Your task to perform on an android device: toggle airplane mode Image 0: 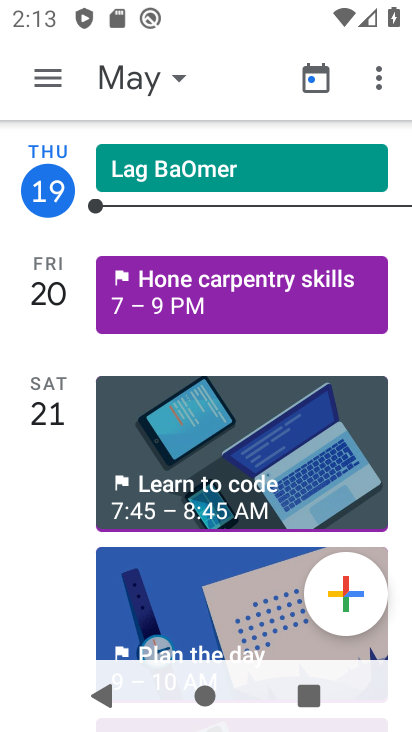
Step 0: press home button
Your task to perform on an android device: toggle airplane mode Image 1: 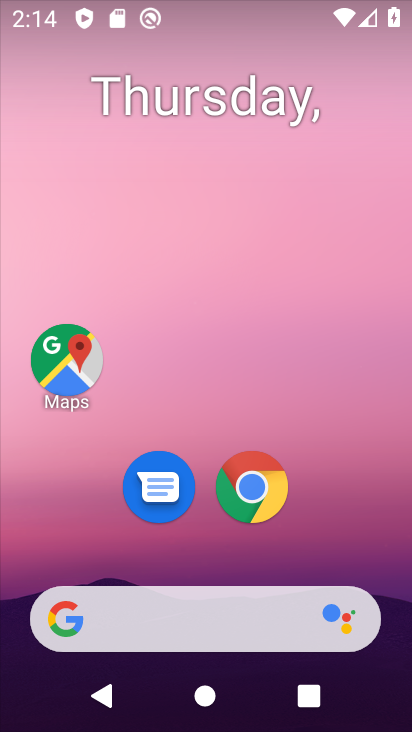
Step 1: drag from (106, 432) to (223, 177)
Your task to perform on an android device: toggle airplane mode Image 2: 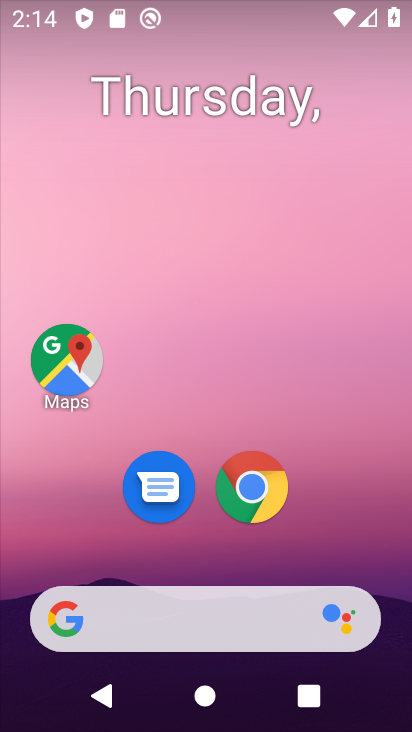
Step 2: drag from (380, 695) to (401, 323)
Your task to perform on an android device: toggle airplane mode Image 3: 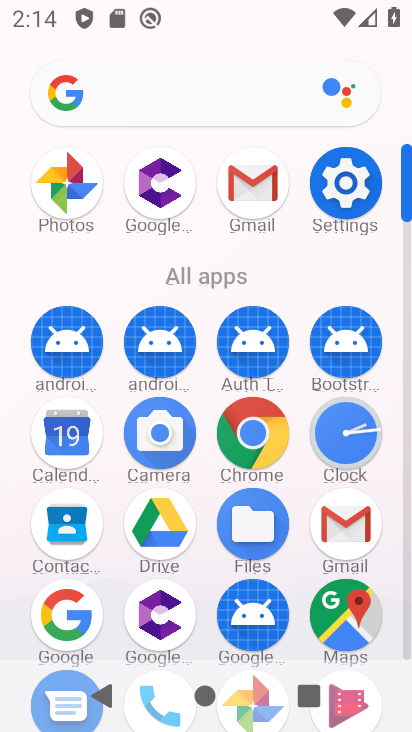
Step 3: drag from (369, 530) to (405, 61)
Your task to perform on an android device: toggle airplane mode Image 4: 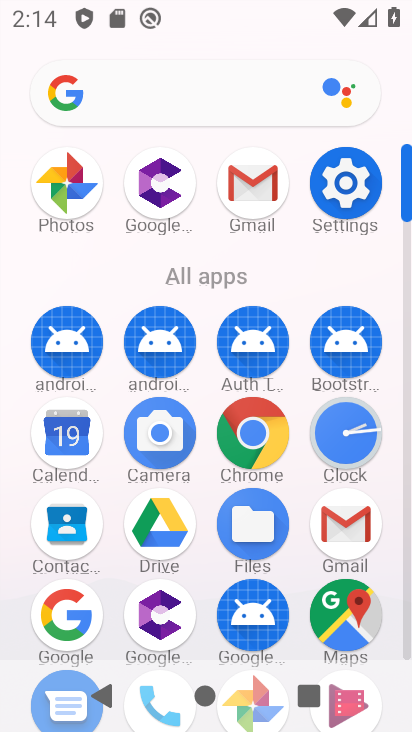
Step 4: click (368, 192)
Your task to perform on an android device: toggle airplane mode Image 5: 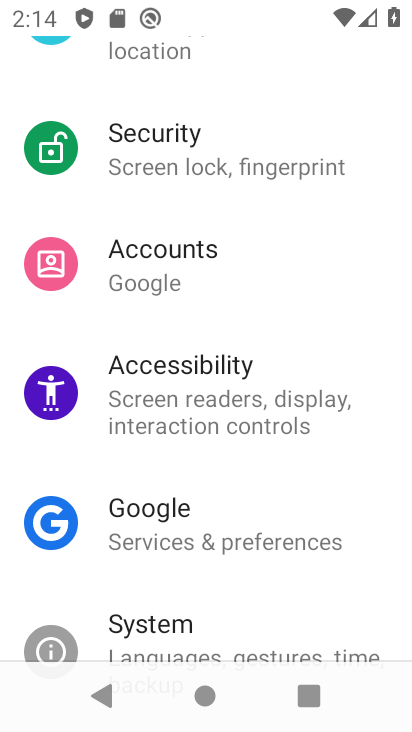
Step 5: drag from (368, 192) to (308, 534)
Your task to perform on an android device: toggle airplane mode Image 6: 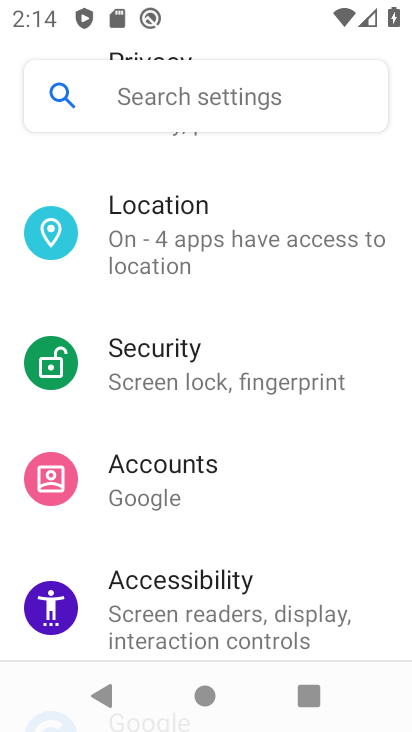
Step 6: drag from (317, 296) to (316, 557)
Your task to perform on an android device: toggle airplane mode Image 7: 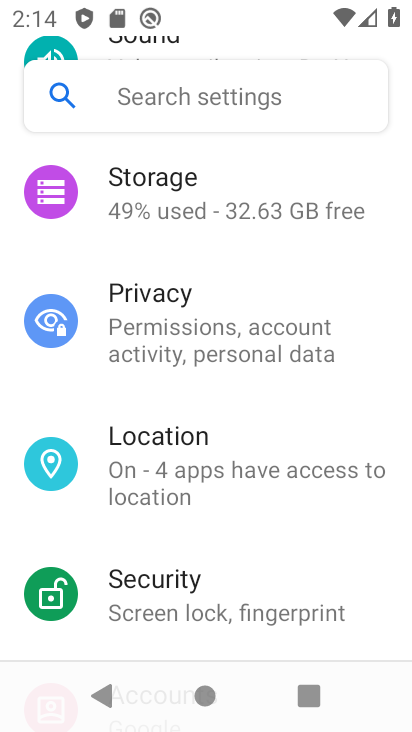
Step 7: drag from (326, 264) to (298, 539)
Your task to perform on an android device: toggle airplane mode Image 8: 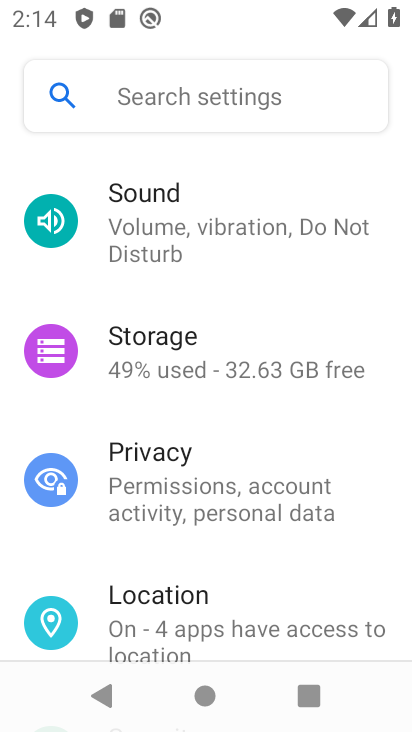
Step 8: drag from (339, 259) to (276, 582)
Your task to perform on an android device: toggle airplane mode Image 9: 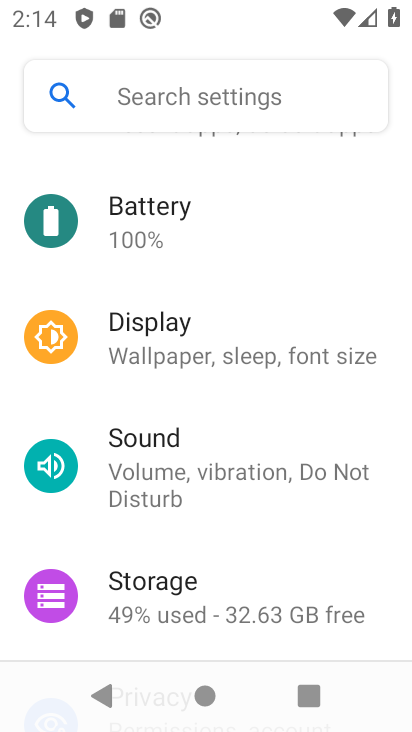
Step 9: drag from (327, 413) to (275, 546)
Your task to perform on an android device: toggle airplane mode Image 10: 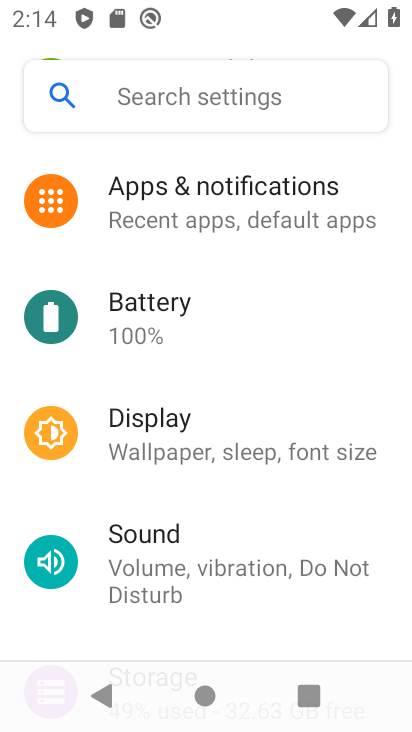
Step 10: drag from (262, 236) to (230, 602)
Your task to perform on an android device: toggle airplane mode Image 11: 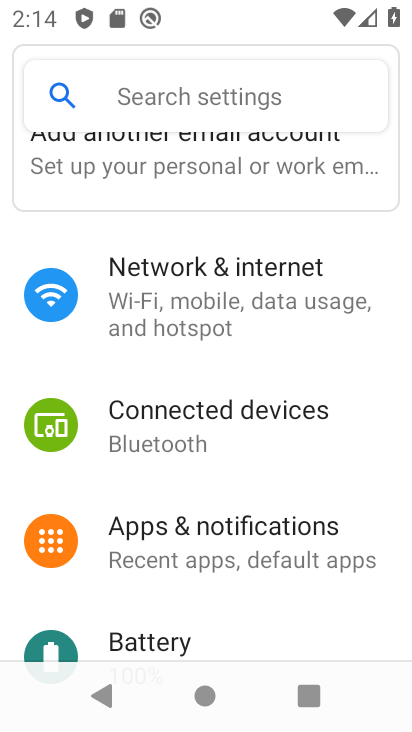
Step 11: click (218, 314)
Your task to perform on an android device: toggle airplane mode Image 12: 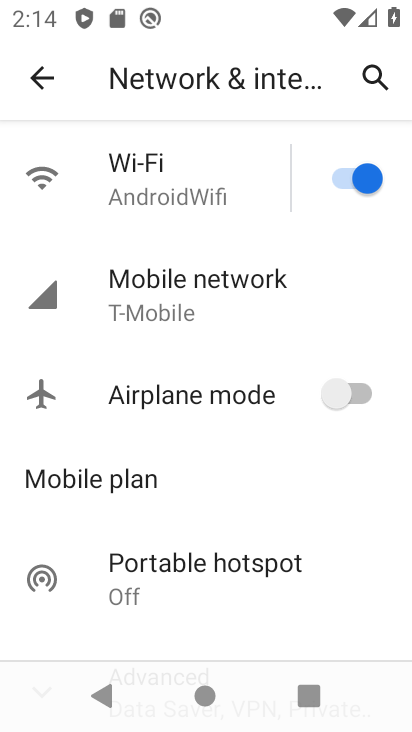
Step 12: click (190, 381)
Your task to perform on an android device: toggle airplane mode Image 13: 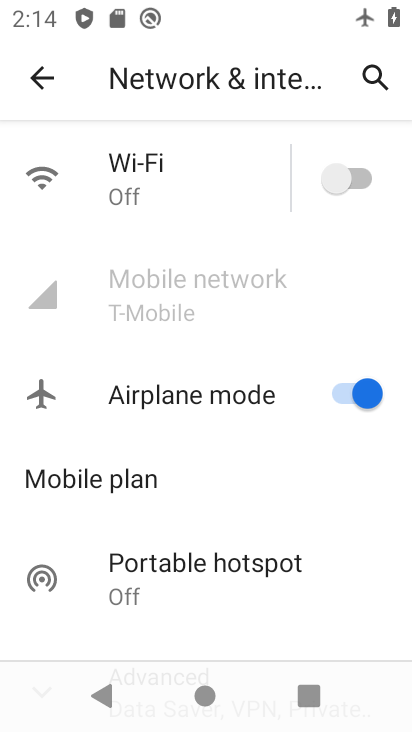
Step 13: task complete